Your task to perform on an android device: open a bookmark in the chrome app Image 0: 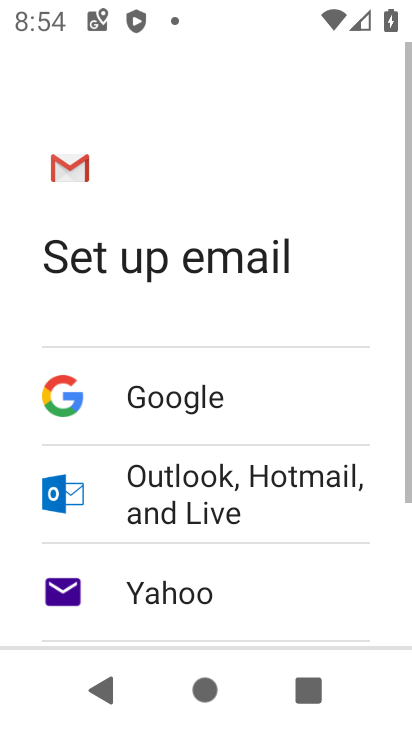
Step 0: press home button
Your task to perform on an android device: open a bookmark in the chrome app Image 1: 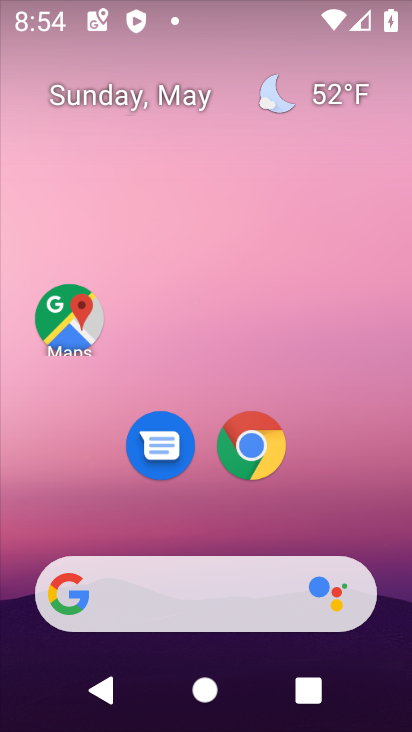
Step 1: click (248, 434)
Your task to perform on an android device: open a bookmark in the chrome app Image 2: 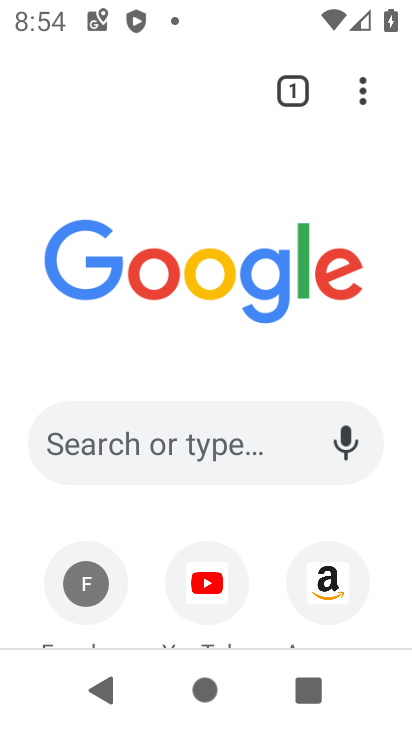
Step 2: click (361, 94)
Your task to perform on an android device: open a bookmark in the chrome app Image 3: 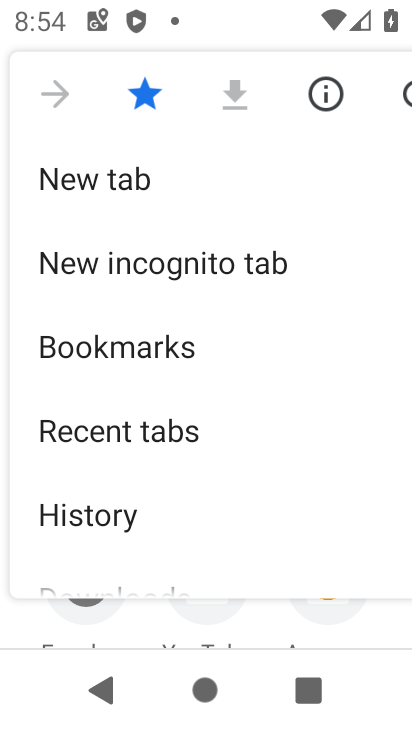
Step 3: click (122, 350)
Your task to perform on an android device: open a bookmark in the chrome app Image 4: 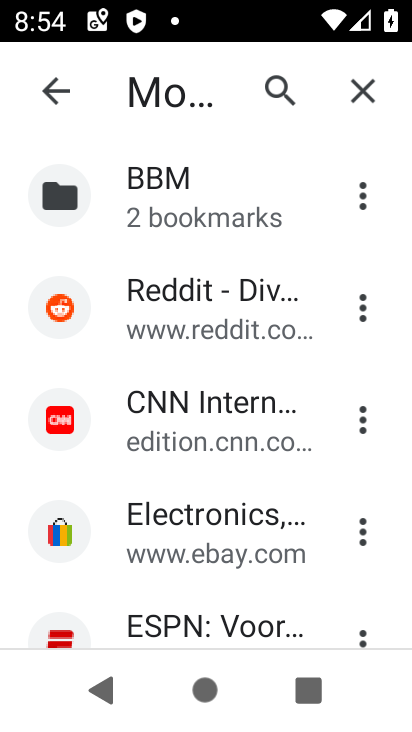
Step 4: task complete